Your task to perform on an android device: Go to accessibility settings Image 0: 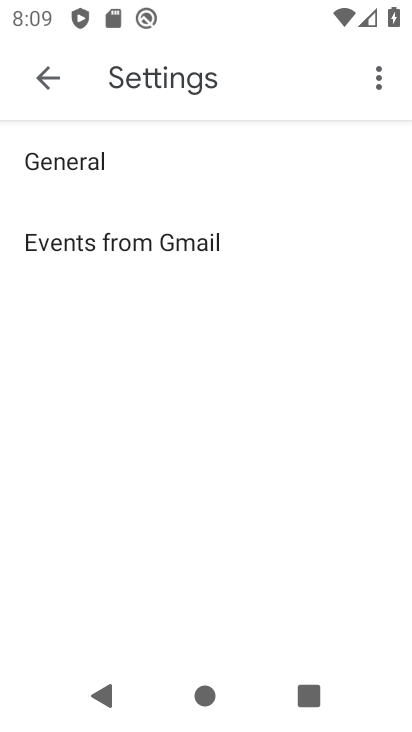
Step 0: press home button
Your task to perform on an android device: Go to accessibility settings Image 1: 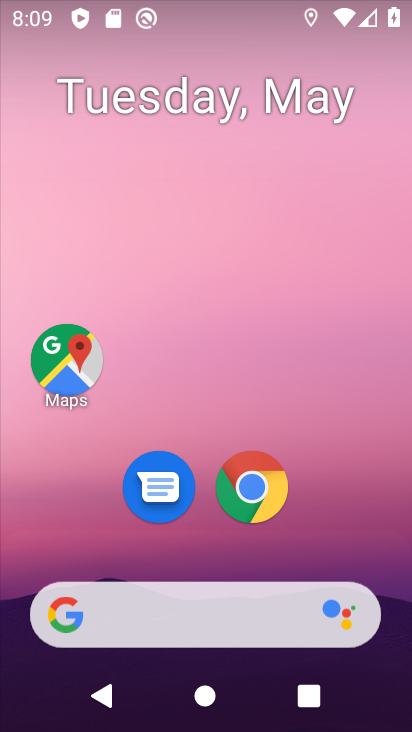
Step 1: drag from (202, 721) to (207, 227)
Your task to perform on an android device: Go to accessibility settings Image 2: 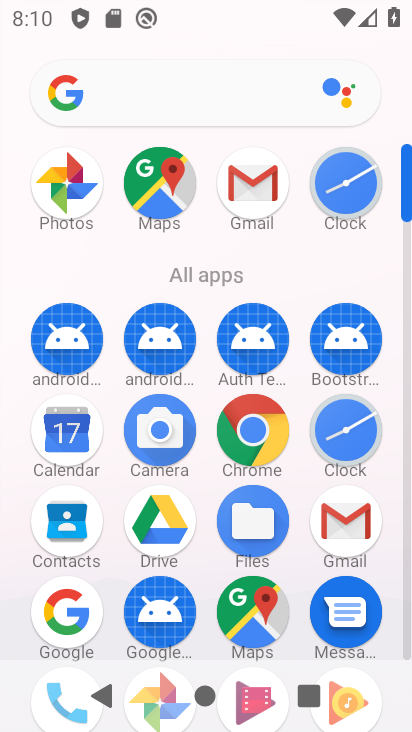
Step 2: drag from (200, 636) to (200, 348)
Your task to perform on an android device: Go to accessibility settings Image 3: 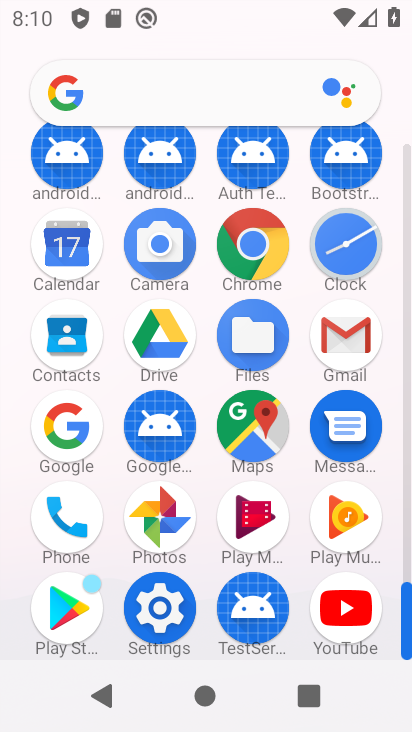
Step 3: click (144, 600)
Your task to perform on an android device: Go to accessibility settings Image 4: 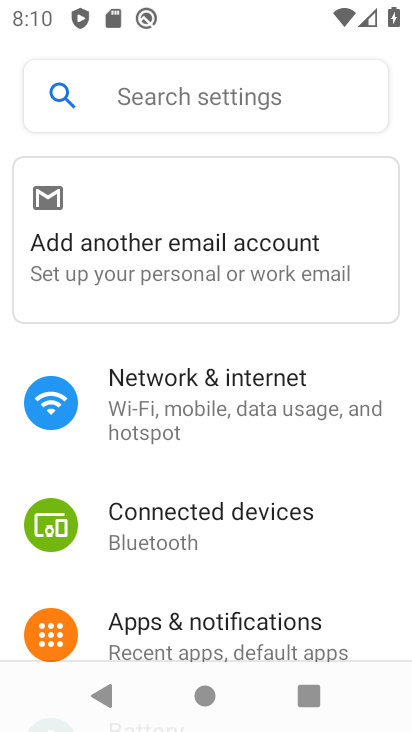
Step 4: drag from (305, 624) to (305, 288)
Your task to perform on an android device: Go to accessibility settings Image 5: 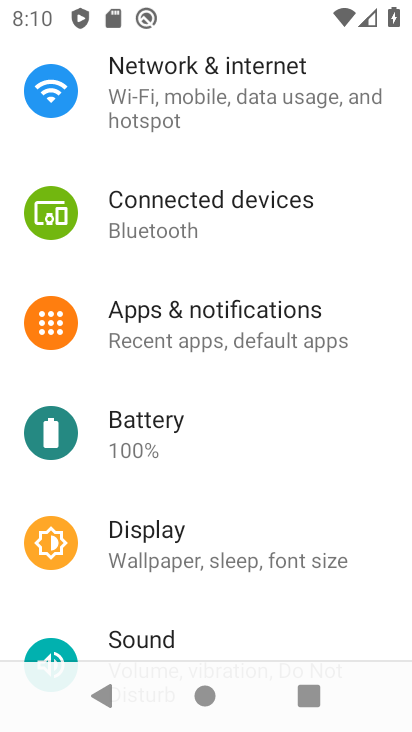
Step 5: drag from (285, 611) to (286, 224)
Your task to perform on an android device: Go to accessibility settings Image 6: 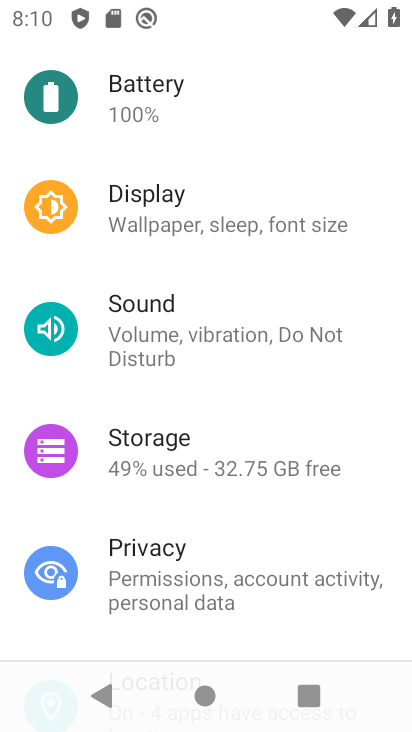
Step 6: drag from (223, 612) to (234, 208)
Your task to perform on an android device: Go to accessibility settings Image 7: 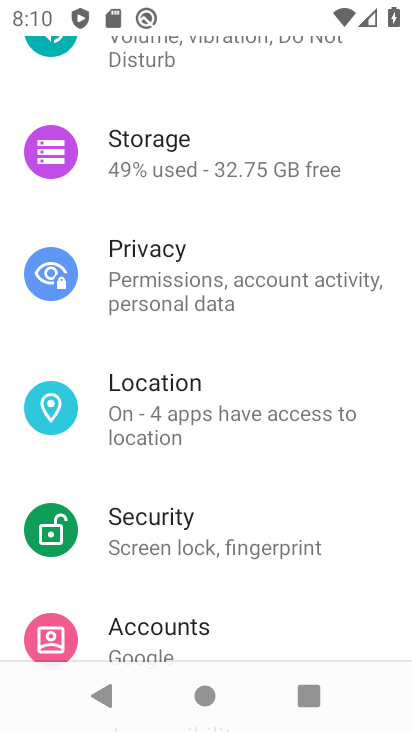
Step 7: drag from (199, 603) to (212, 294)
Your task to perform on an android device: Go to accessibility settings Image 8: 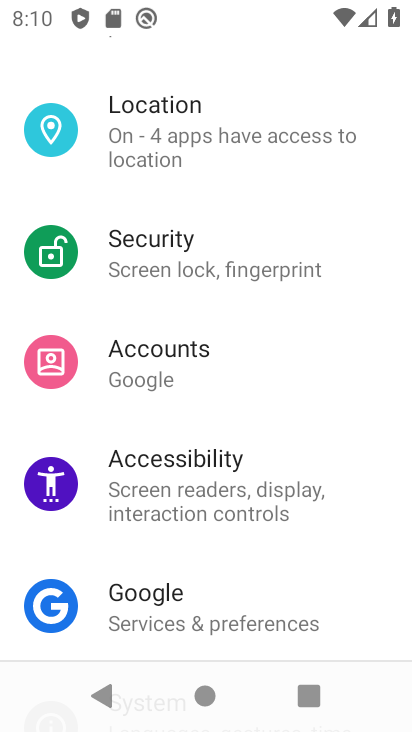
Step 8: click (196, 459)
Your task to perform on an android device: Go to accessibility settings Image 9: 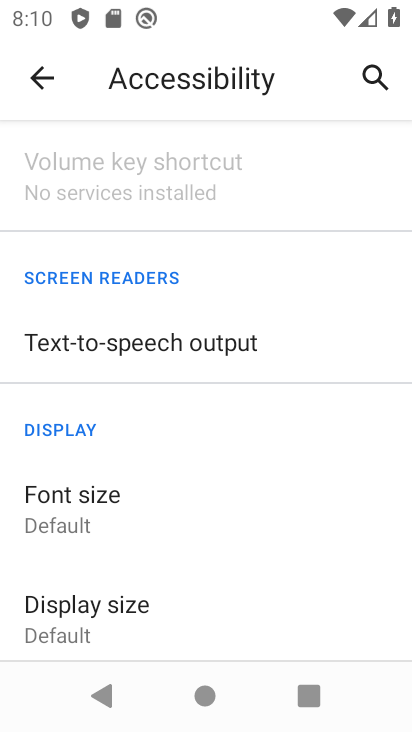
Step 9: task complete